Your task to perform on an android device: Open the map Image 0: 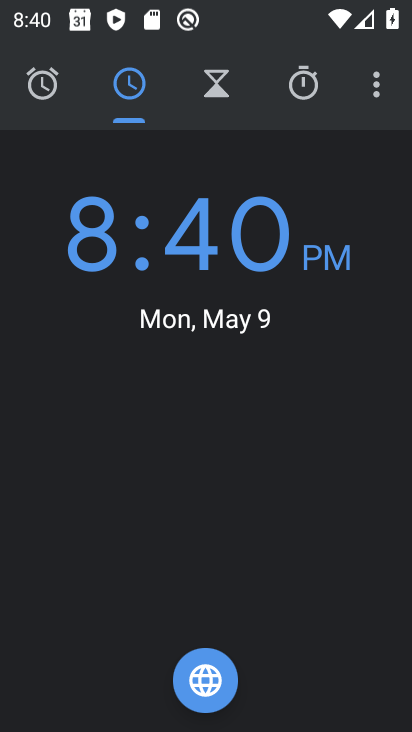
Step 0: press home button
Your task to perform on an android device: Open the map Image 1: 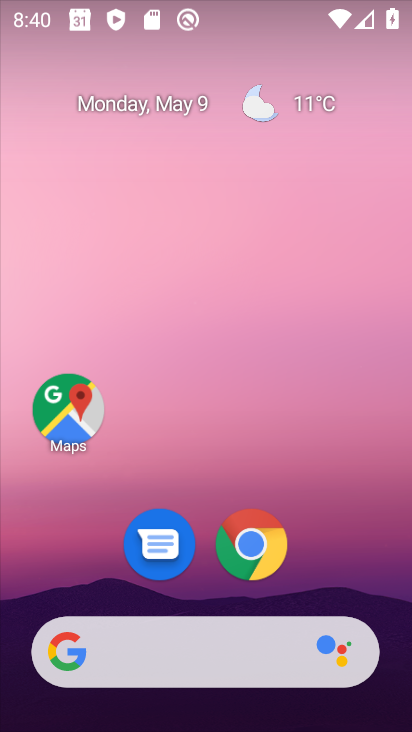
Step 1: click (52, 404)
Your task to perform on an android device: Open the map Image 2: 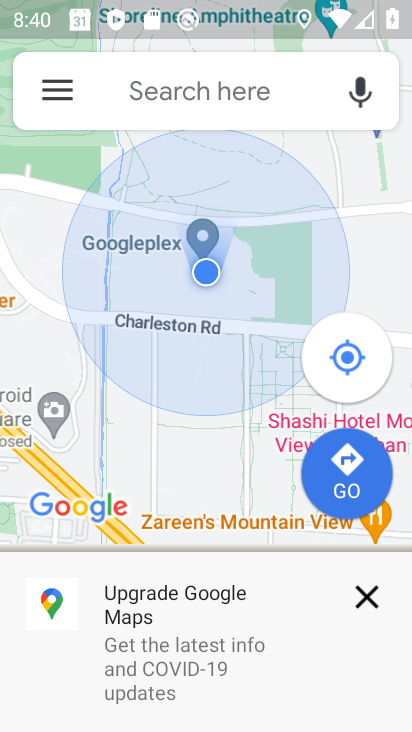
Step 2: task complete